Your task to perform on an android device: snooze an email in the gmail app Image 0: 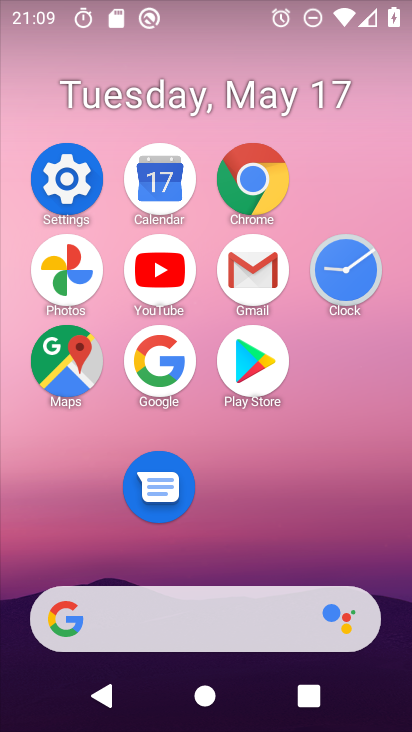
Step 0: click (246, 286)
Your task to perform on an android device: snooze an email in the gmail app Image 1: 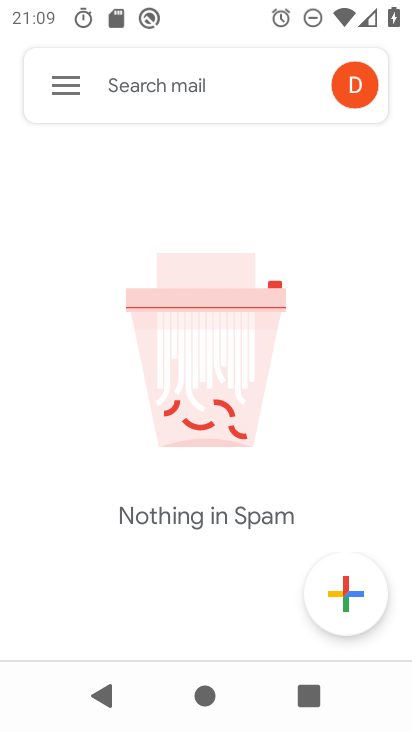
Step 1: click (46, 83)
Your task to perform on an android device: snooze an email in the gmail app Image 2: 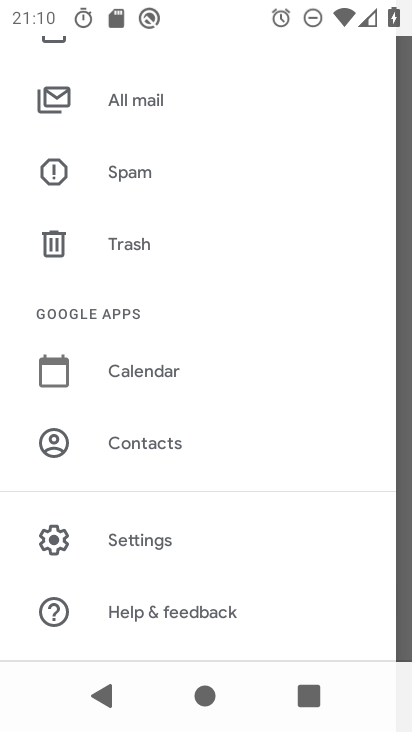
Step 2: click (185, 99)
Your task to perform on an android device: snooze an email in the gmail app Image 3: 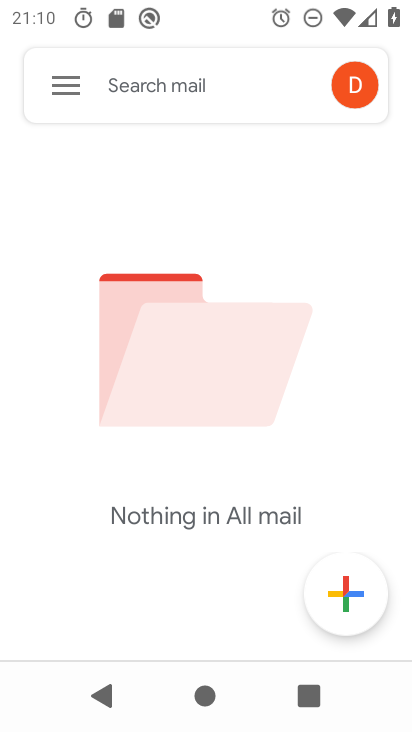
Step 3: task complete